Your task to perform on an android device: Open the clock app Image 0: 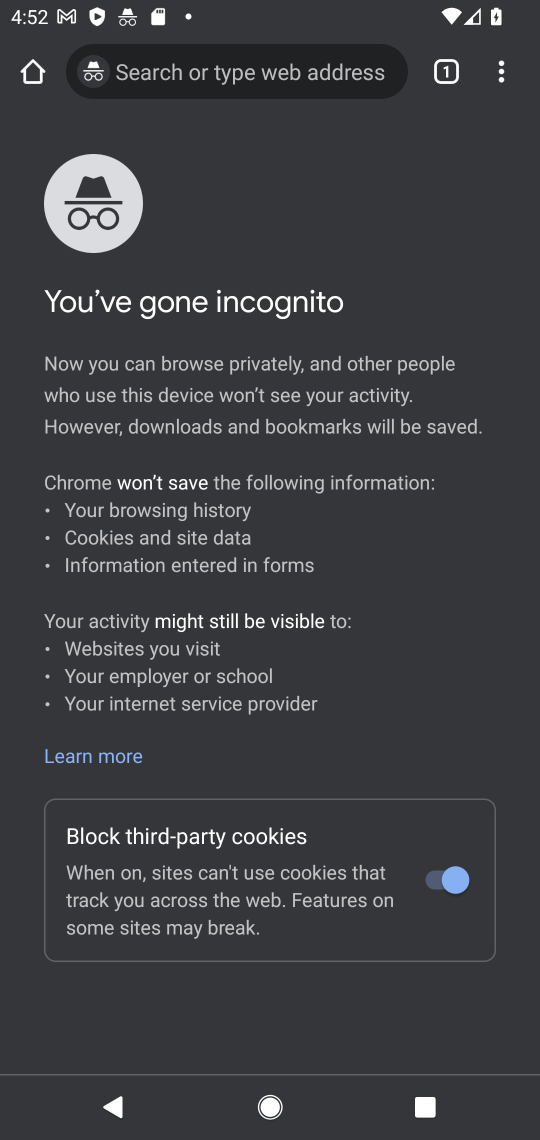
Step 0: press home button
Your task to perform on an android device: Open the clock app Image 1: 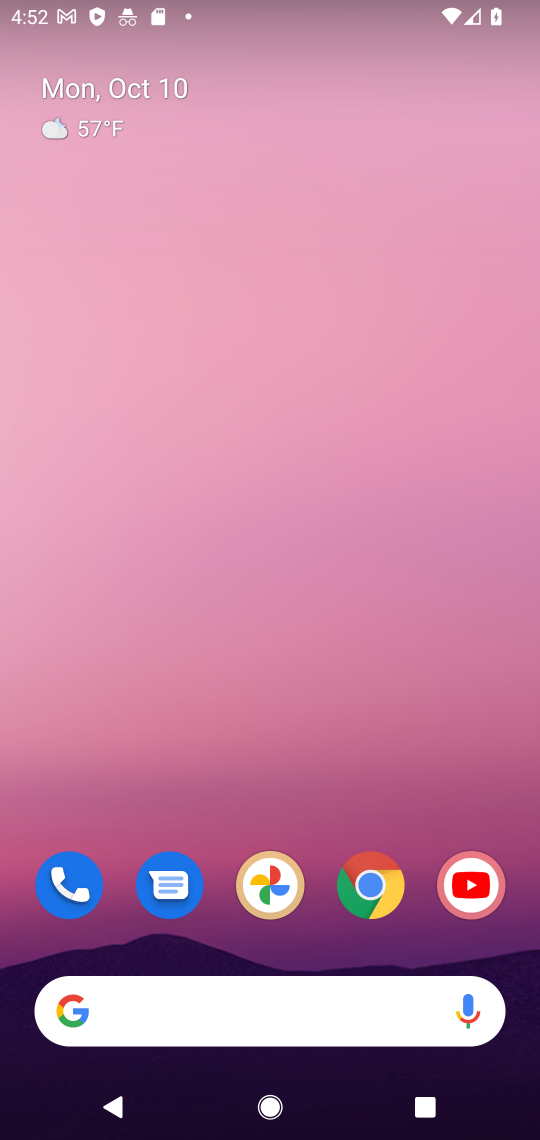
Step 1: drag from (221, 950) to (191, 100)
Your task to perform on an android device: Open the clock app Image 2: 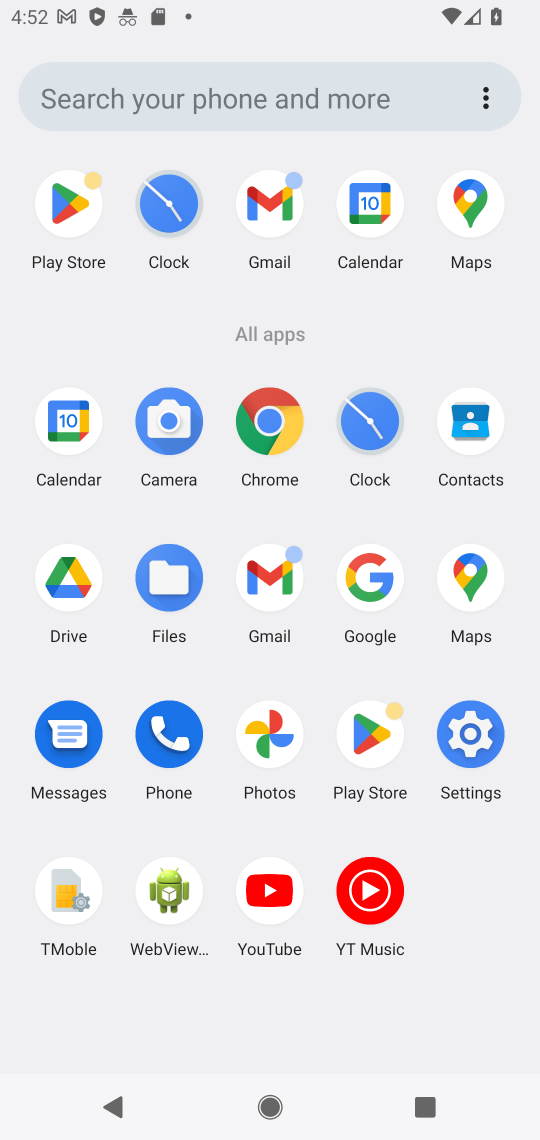
Step 2: click (169, 209)
Your task to perform on an android device: Open the clock app Image 3: 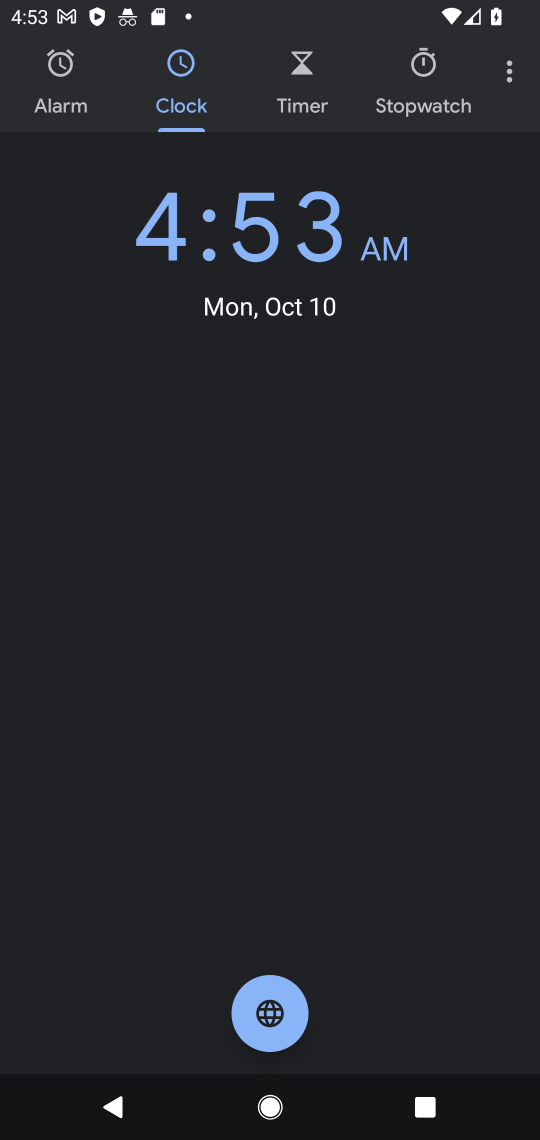
Step 3: task complete